Your task to perform on an android device: open app "LiveIn - Share Your Moment" Image 0: 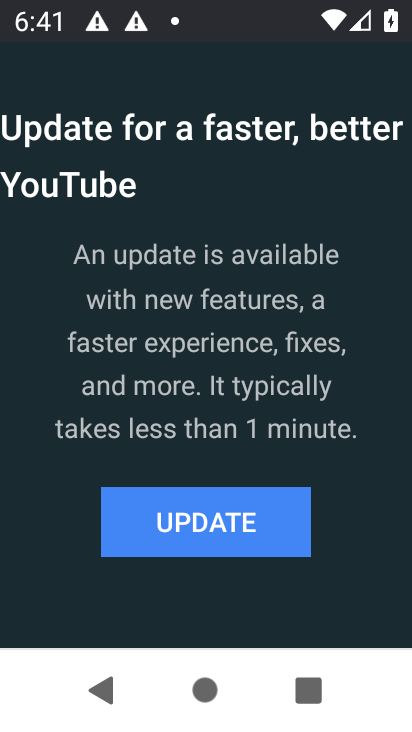
Step 0: press back button
Your task to perform on an android device: open app "LiveIn - Share Your Moment" Image 1: 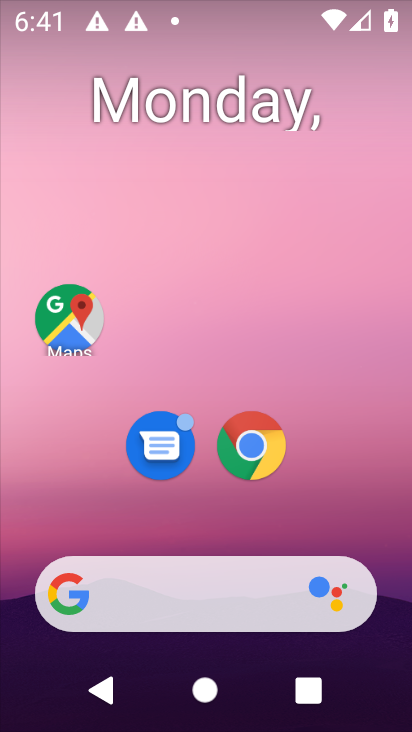
Step 1: drag from (375, 513) to (293, 139)
Your task to perform on an android device: open app "LiveIn - Share Your Moment" Image 2: 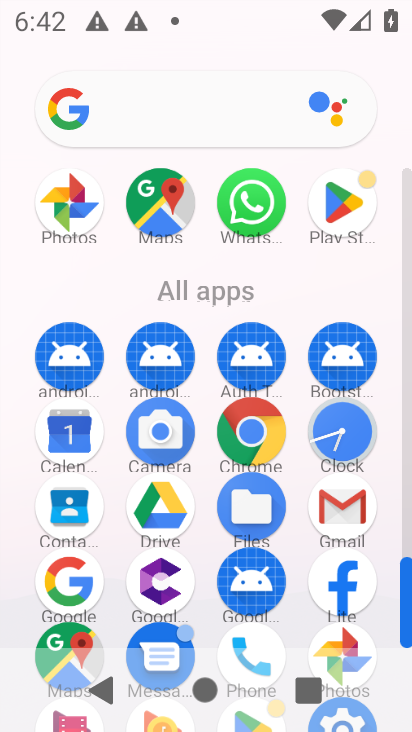
Step 2: click (329, 195)
Your task to perform on an android device: open app "LiveIn - Share Your Moment" Image 3: 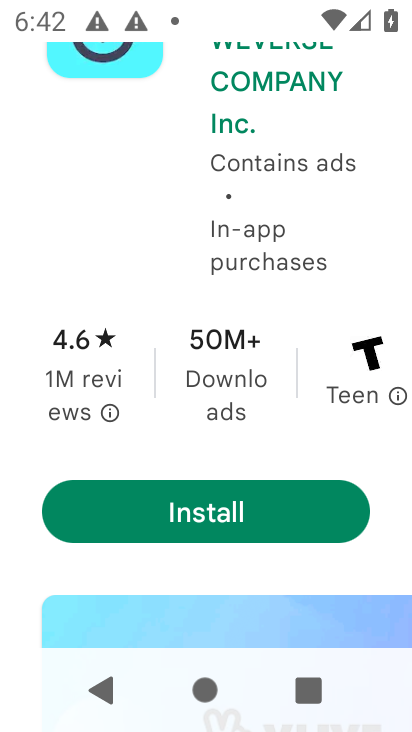
Step 3: press back button
Your task to perform on an android device: open app "LiveIn - Share Your Moment" Image 4: 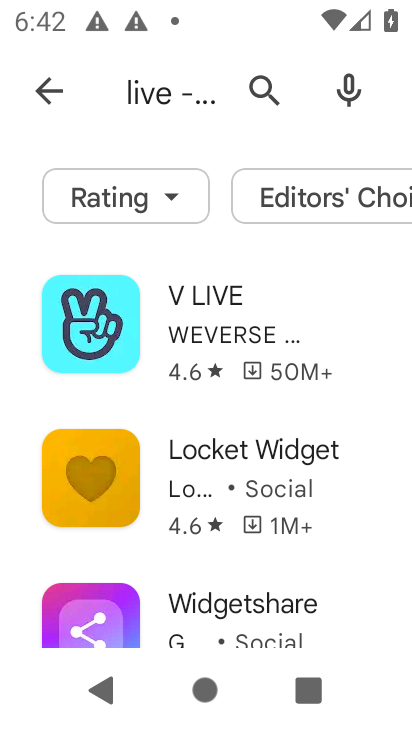
Step 4: press back button
Your task to perform on an android device: open app "LiveIn - Share Your Moment" Image 5: 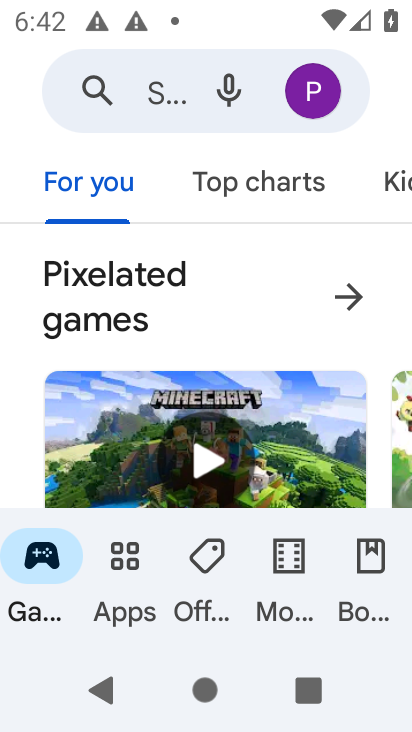
Step 5: click (146, 97)
Your task to perform on an android device: open app "LiveIn - Share Your Moment" Image 6: 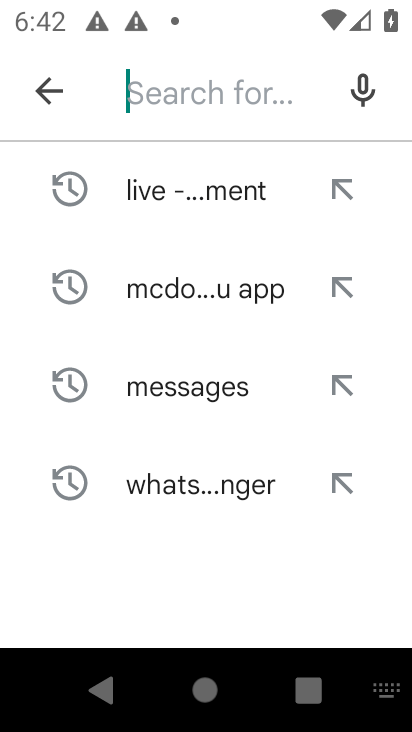
Step 6: click (222, 94)
Your task to perform on an android device: open app "LiveIn - Share Your Moment" Image 7: 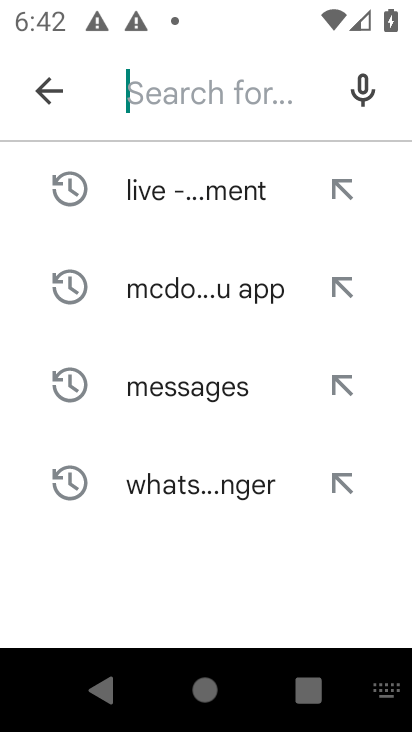
Step 7: type "LiveIn - Share Your Moment"
Your task to perform on an android device: open app "LiveIn - Share Your Moment" Image 8: 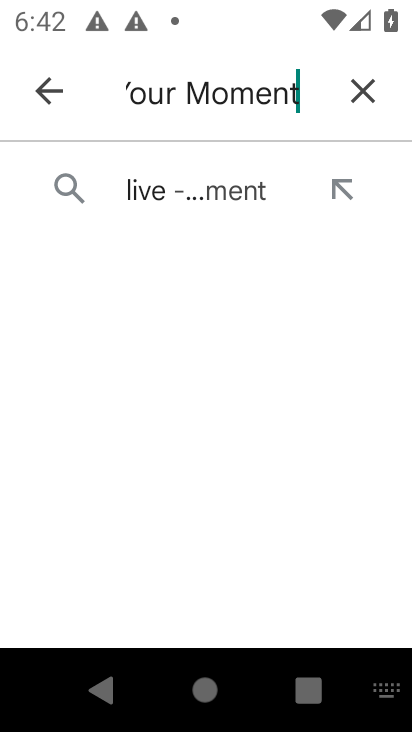
Step 8: click (257, 193)
Your task to perform on an android device: open app "LiveIn - Share Your Moment" Image 9: 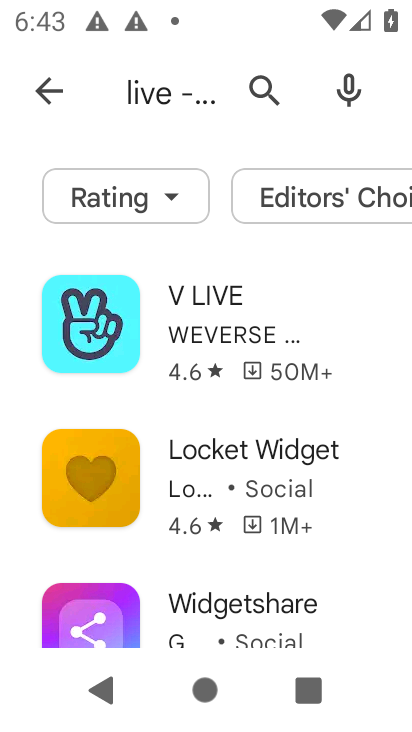
Step 9: task complete